Your task to perform on an android device: Open the web browser Image 0: 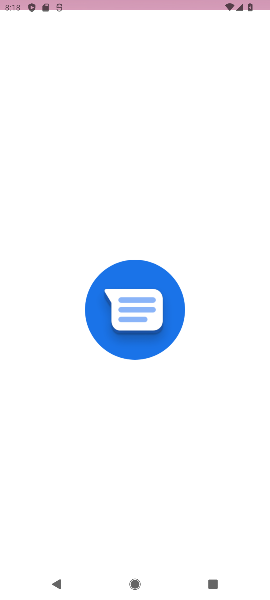
Step 0: click (209, 227)
Your task to perform on an android device: Open the web browser Image 1: 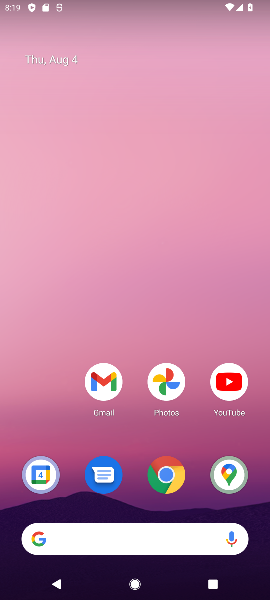
Step 1: drag from (134, 486) to (197, 163)
Your task to perform on an android device: Open the web browser Image 2: 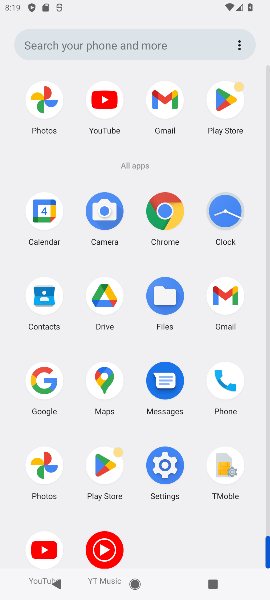
Step 2: click (158, 206)
Your task to perform on an android device: Open the web browser Image 3: 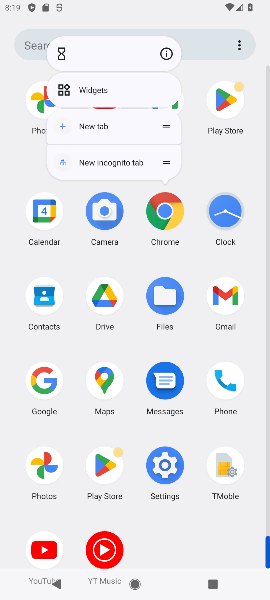
Step 3: click (156, 50)
Your task to perform on an android device: Open the web browser Image 4: 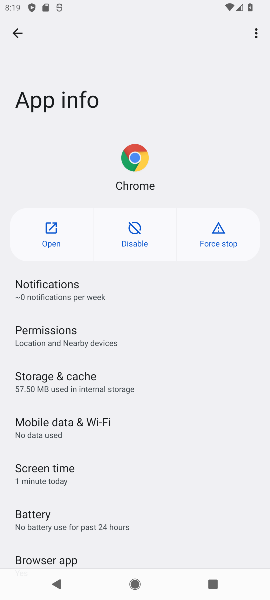
Step 4: click (47, 233)
Your task to perform on an android device: Open the web browser Image 5: 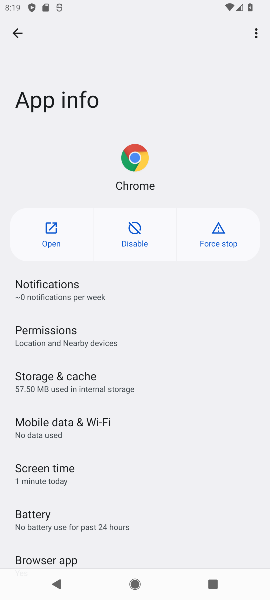
Step 5: click (47, 233)
Your task to perform on an android device: Open the web browser Image 6: 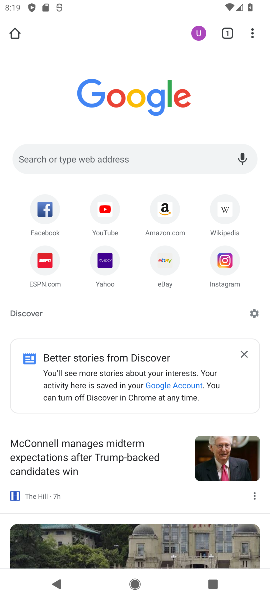
Step 6: task complete